Your task to perform on an android device: snooze an email in the gmail app Image 0: 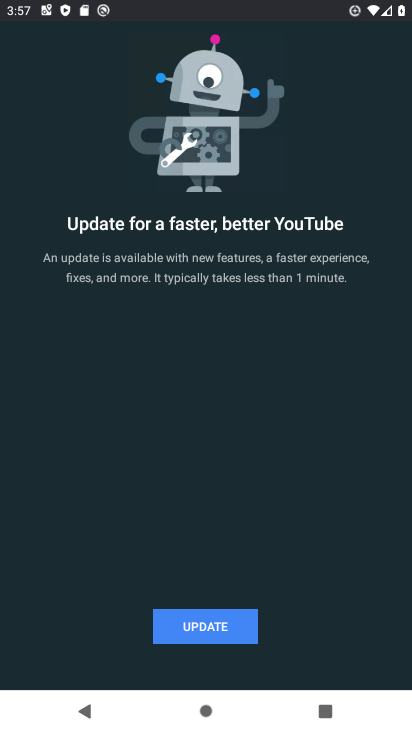
Step 0: drag from (339, 594) to (346, 23)
Your task to perform on an android device: snooze an email in the gmail app Image 1: 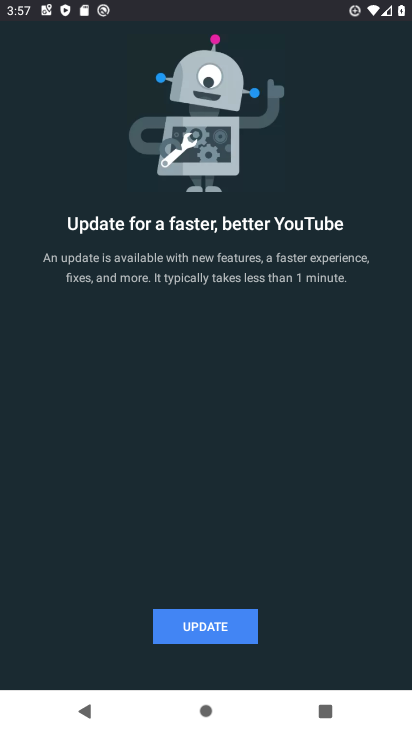
Step 1: press home button
Your task to perform on an android device: snooze an email in the gmail app Image 2: 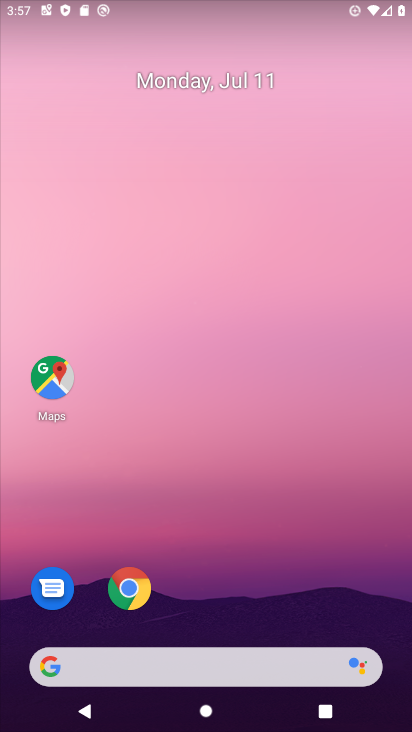
Step 2: drag from (325, 591) to (410, 9)
Your task to perform on an android device: snooze an email in the gmail app Image 3: 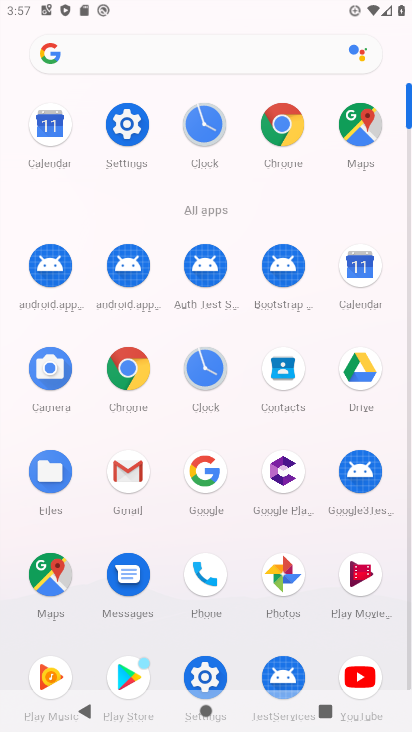
Step 3: click (125, 465)
Your task to perform on an android device: snooze an email in the gmail app Image 4: 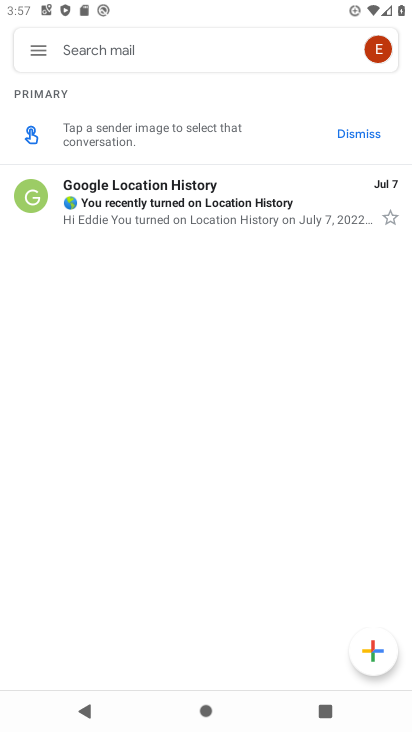
Step 4: click (232, 203)
Your task to perform on an android device: snooze an email in the gmail app Image 5: 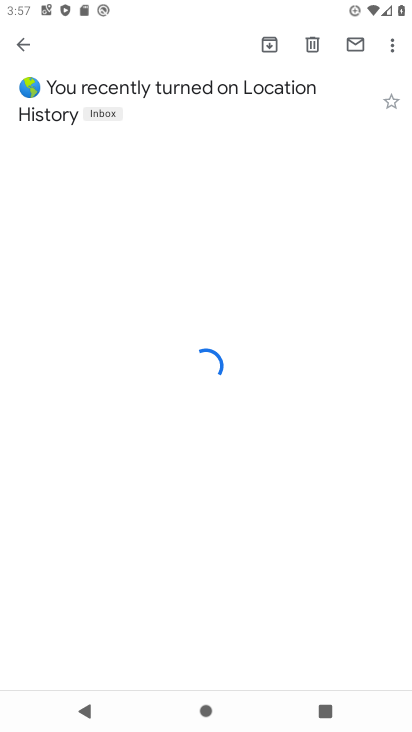
Step 5: click (391, 44)
Your task to perform on an android device: snooze an email in the gmail app Image 6: 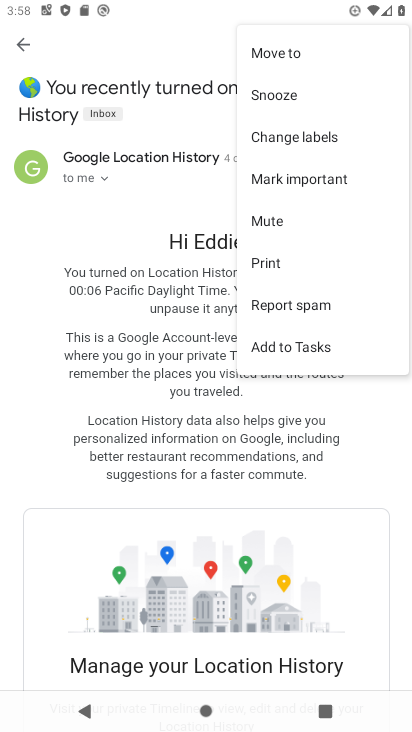
Step 6: click (277, 98)
Your task to perform on an android device: snooze an email in the gmail app Image 7: 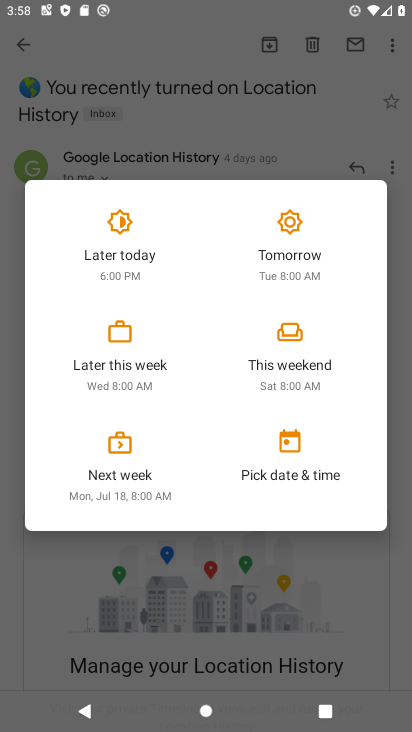
Step 7: click (103, 242)
Your task to perform on an android device: snooze an email in the gmail app Image 8: 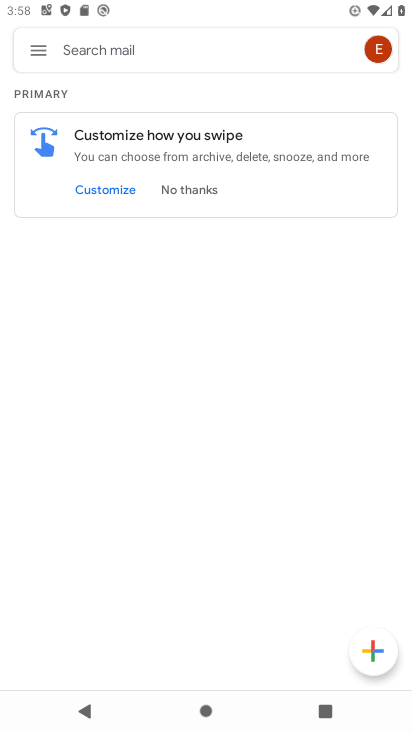
Step 8: task complete